Your task to perform on an android device: open sync settings in chrome Image 0: 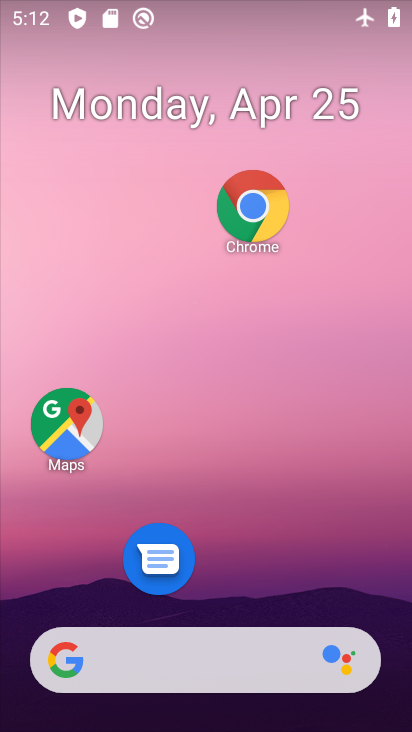
Step 0: click (246, 216)
Your task to perform on an android device: open sync settings in chrome Image 1: 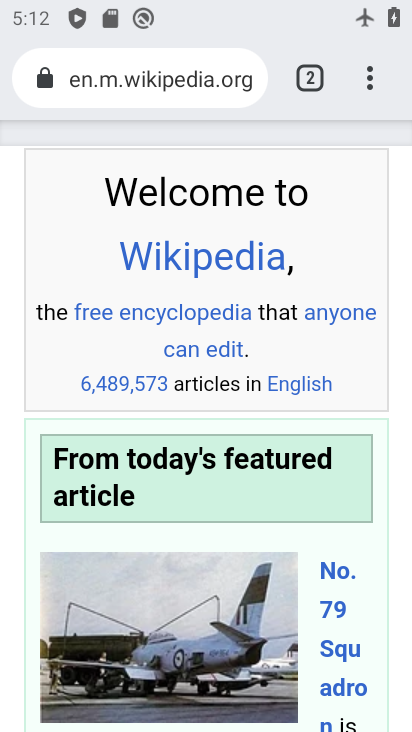
Step 1: click (364, 86)
Your task to perform on an android device: open sync settings in chrome Image 2: 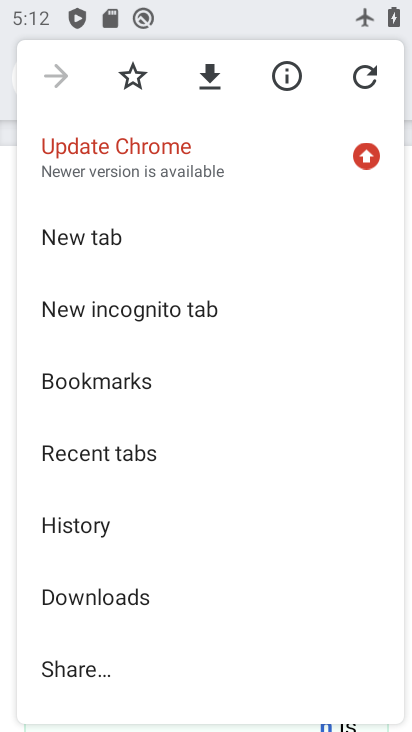
Step 2: drag from (98, 553) to (120, 216)
Your task to perform on an android device: open sync settings in chrome Image 3: 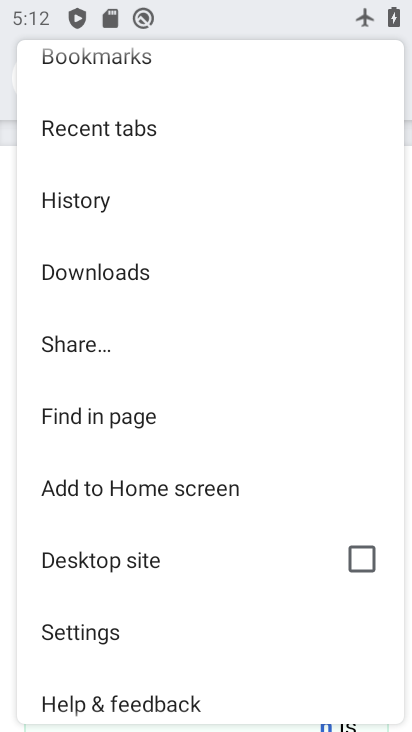
Step 3: click (73, 626)
Your task to perform on an android device: open sync settings in chrome Image 4: 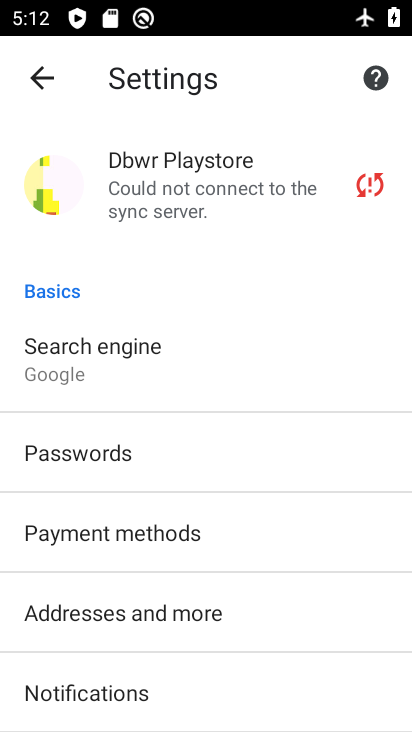
Step 4: drag from (117, 570) to (101, 297)
Your task to perform on an android device: open sync settings in chrome Image 5: 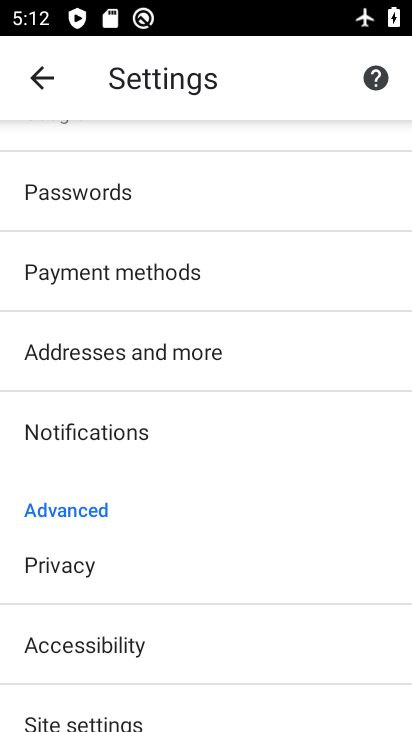
Step 5: drag from (107, 455) to (167, 209)
Your task to perform on an android device: open sync settings in chrome Image 6: 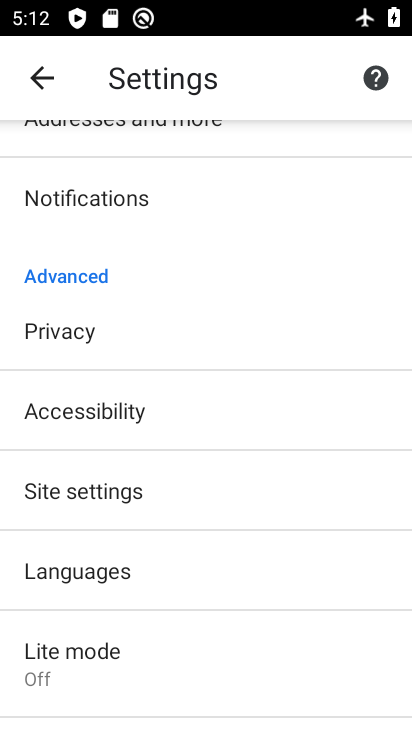
Step 6: click (58, 492)
Your task to perform on an android device: open sync settings in chrome Image 7: 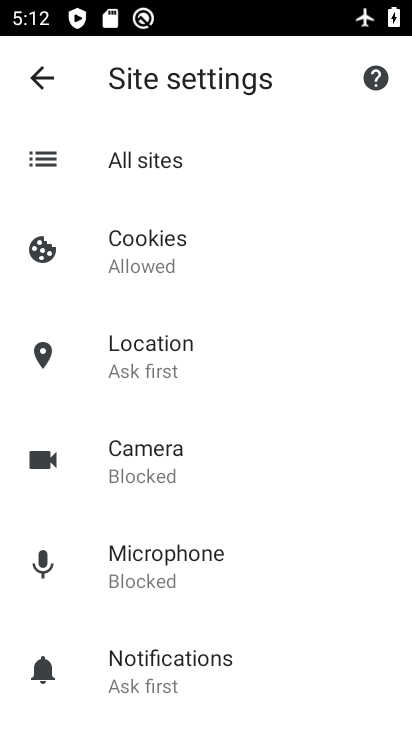
Step 7: drag from (161, 501) to (205, 255)
Your task to perform on an android device: open sync settings in chrome Image 8: 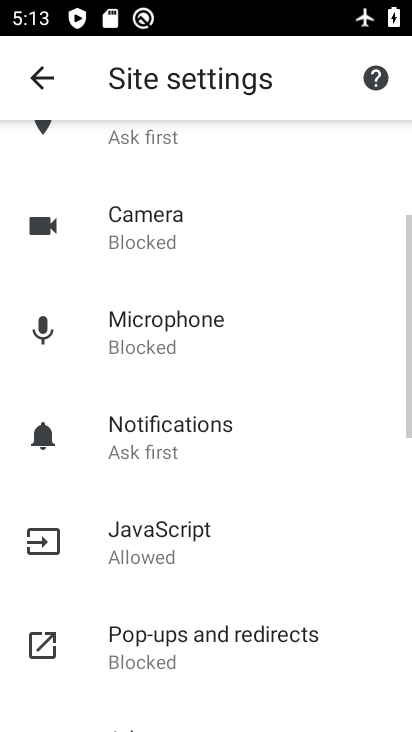
Step 8: drag from (171, 604) to (238, 315)
Your task to perform on an android device: open sync settings in chrome Image 9: 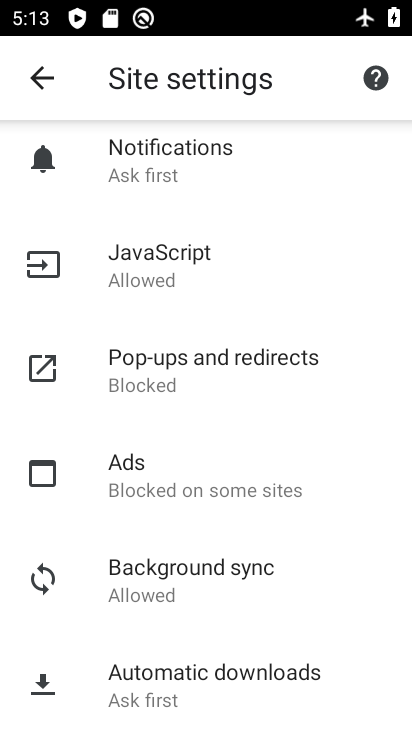
Step 9: drag from (151, 641) to (198, 373)
Your task to perform on an android device: open sync settings in chrome Image 10: 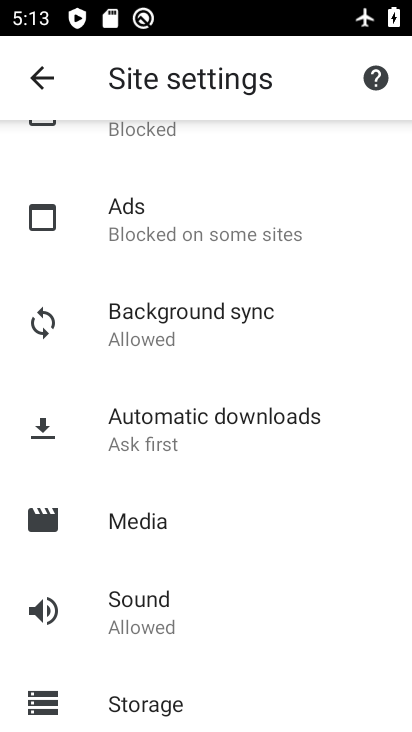
Step 10: click (162, 327)
Your task to perform on an android device: open sync settings in chrome Image 11: 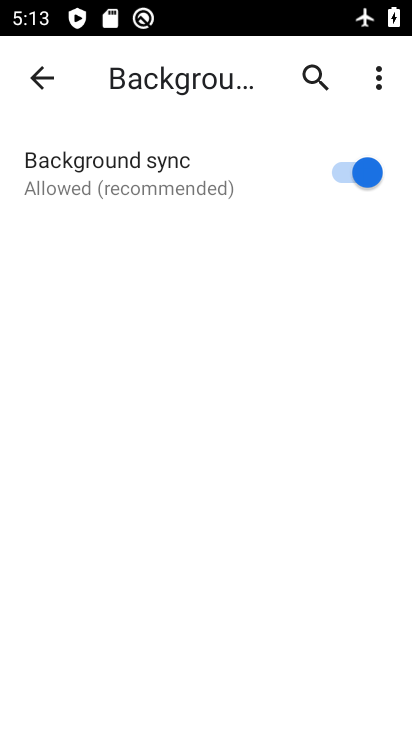
Step 11: task complete